Your task to perform on an android device: open a bookmark in the chrome app Image 0: 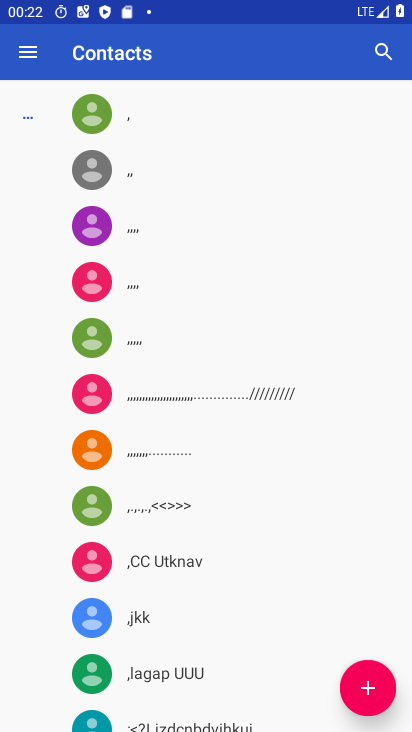
Step 0: press home button
Your task to perform on an android device: open a bookmark in the chrome app Image 1: 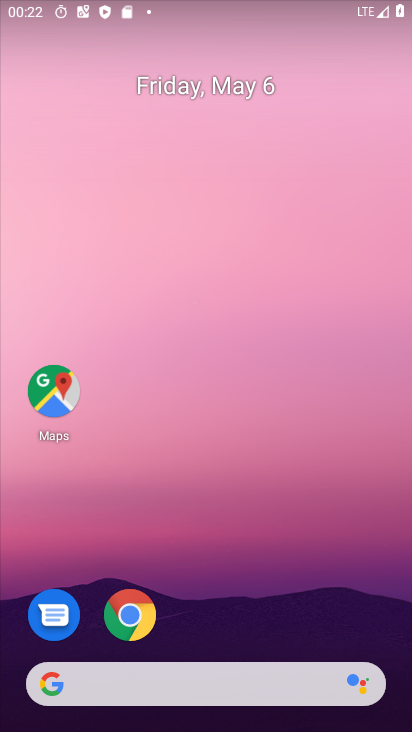
Step 1: click (128, 614)
Your task to perform on an android device: open a bookmark in the chrome app Image 2: 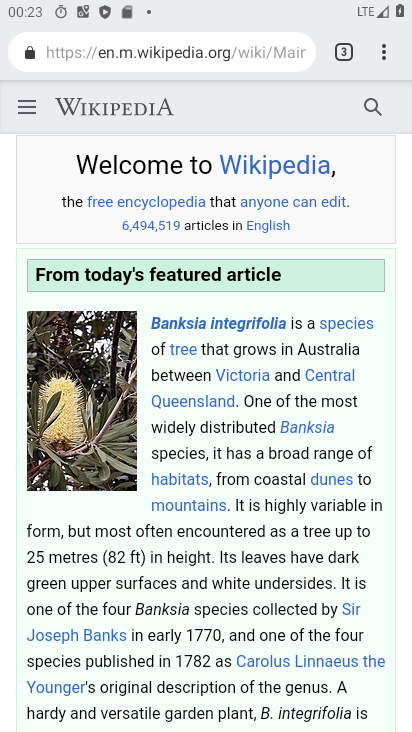
Step 2: click (376, 47)
Your task to perform on an android device: open a bookmark in the chrome app Image 3: 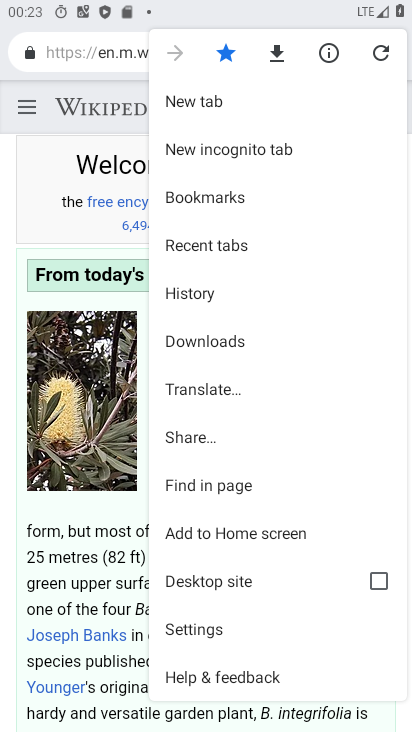
Step 3: click (203, 196)
Your task to perform on an android device: open a bookmark in the chrome app Image 4: 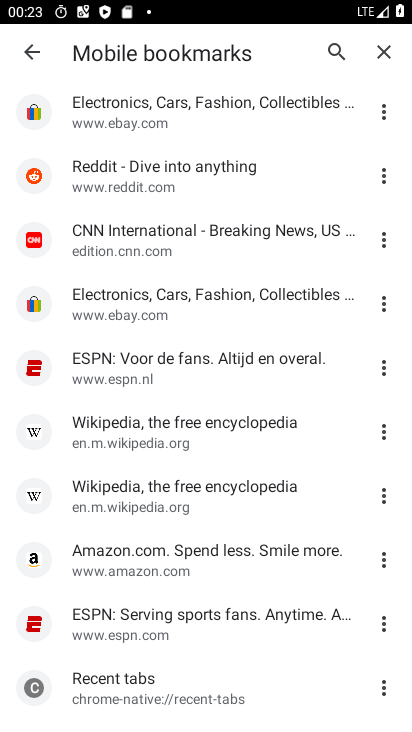
Step 4: click (104, 182)
Your task to perform on an android device: open a bookmark in the chrome app Image 5: 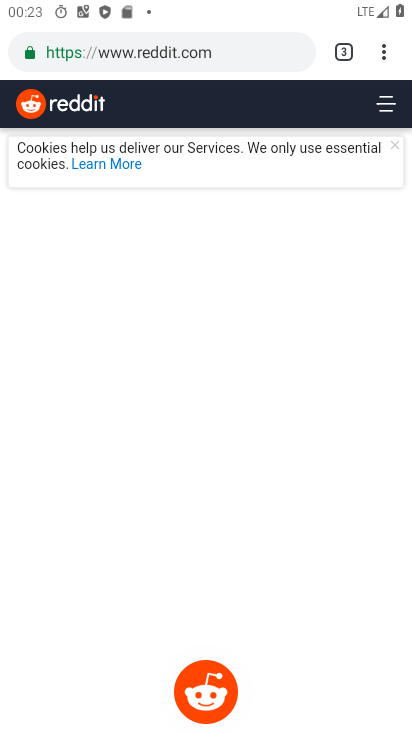
Step 5: task complete